Your task to perform on an android device: snooze an email in the gmail app Image 0: 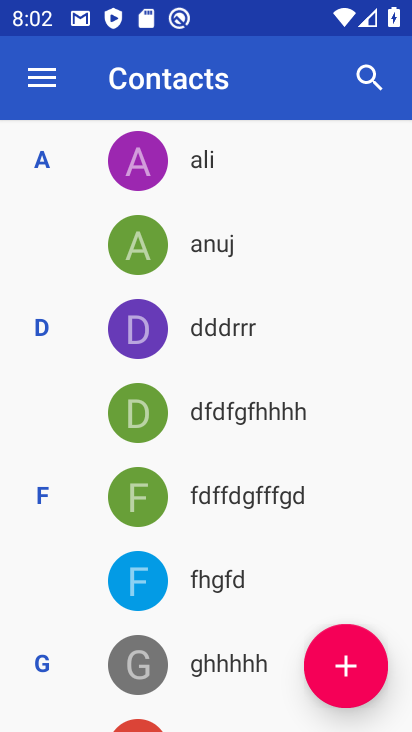
Step 0: press home button
Your task to perform on an android device: snooze an email in the gmail app Image 1: 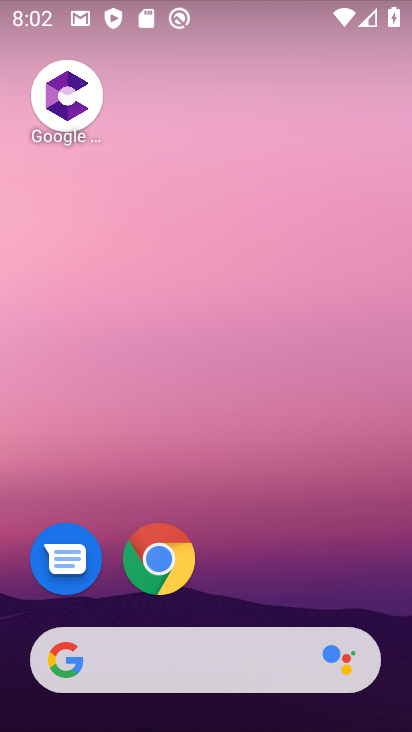
Step 1: drag from (354, 583) to (359, 107)
Your task to perform on an android device: snooze an email in the gmail app Image 2: 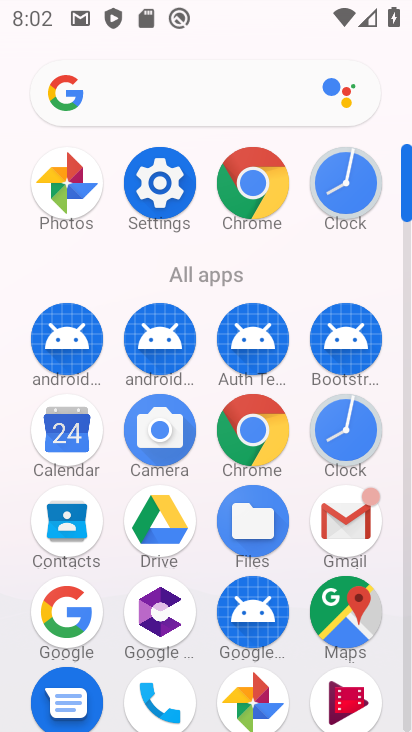
Step 2: click (345, 444)
Your task to perform on an android device: snooze an email in the gmail app Image 3: 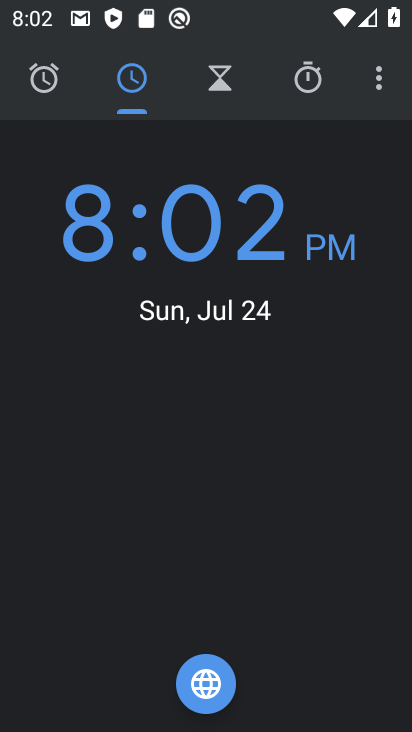
Step 3: press home button
Your task to perform on an android device: snooze an email in the gmail app Image 4: 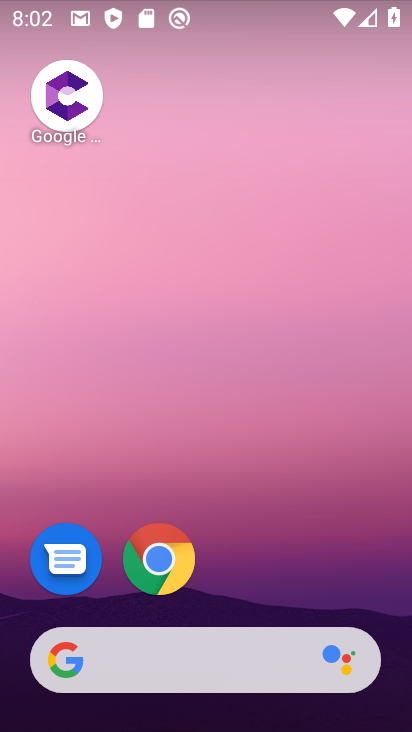
Step 4: drag from (343, 559) to (359, 85)
Your task to perform on an android device: snooze an email in the gmail app Image 5: 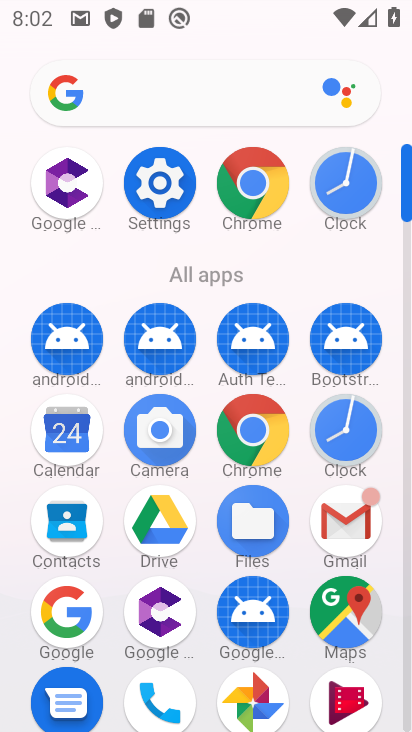
Step 5: click (352, 515)
Your task to perform on an android device: snooze an email in the gmail app Image 6: 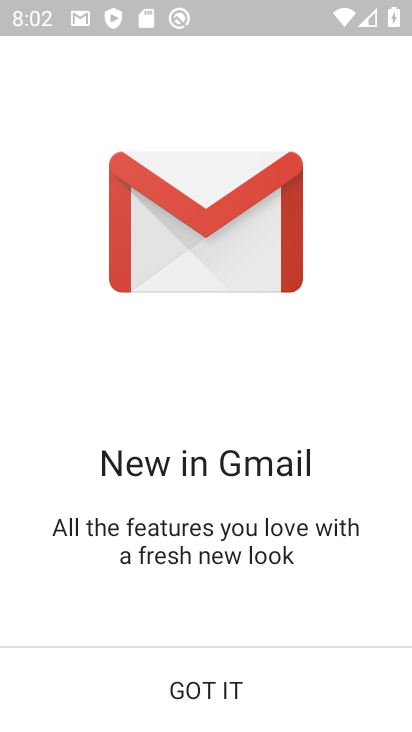
Step 6: click (268, 664)
Your task to perform on an android device: snooze an email in the gmail app Image 7: 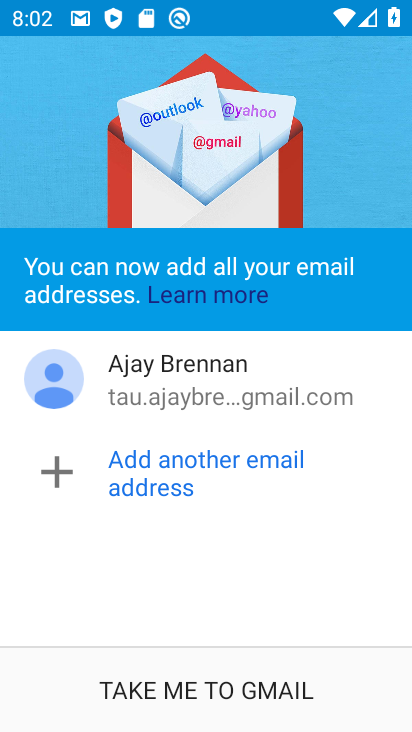
Step 7: click (255, 689)
Your task to perform on an android device: snooze an email in the gmail app Image 8: 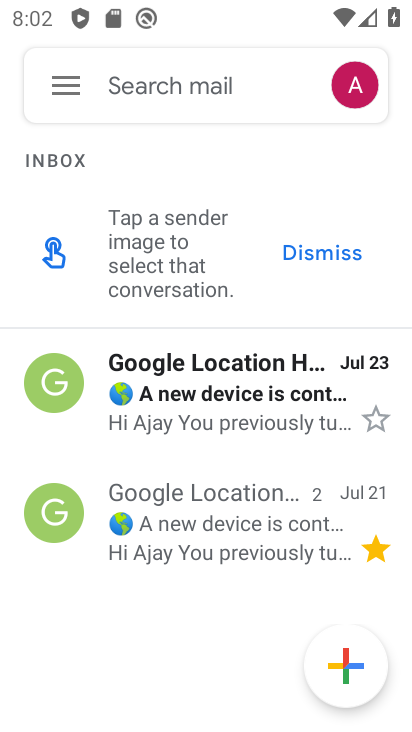
Step 8: click (64, 83)
Your task to perform on an android device: snooze an email in the gmail app Image 9: 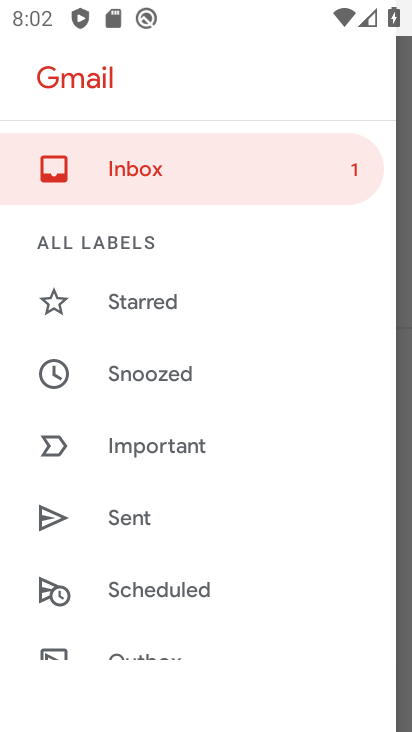
Step 9: click (194, 377)
Your task to perform on an android device: snooze an email in the gmail app Image 10: 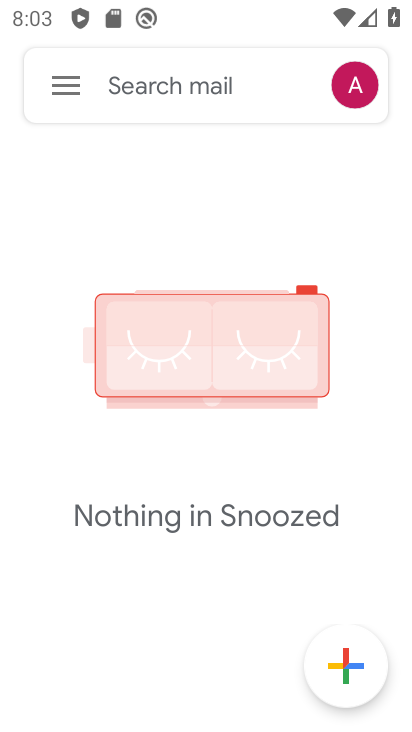
Step 10: task complete